Your task to perform on an android device: Open my contact list Image 0: 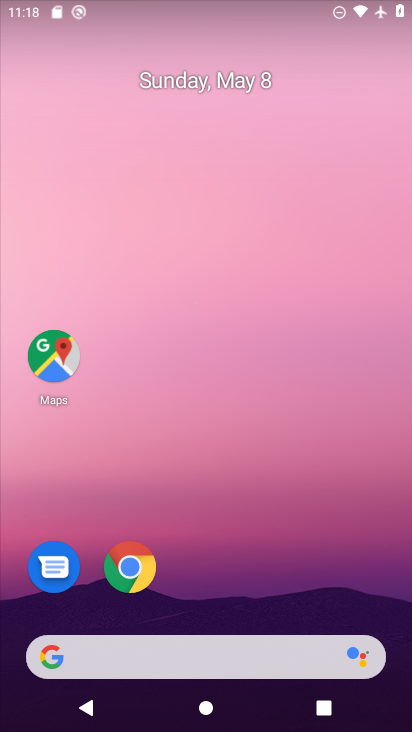
Step 0: drag from (191, 463) to (207, 142)
Your task to perform on an android device: Open my contact list Image 1: 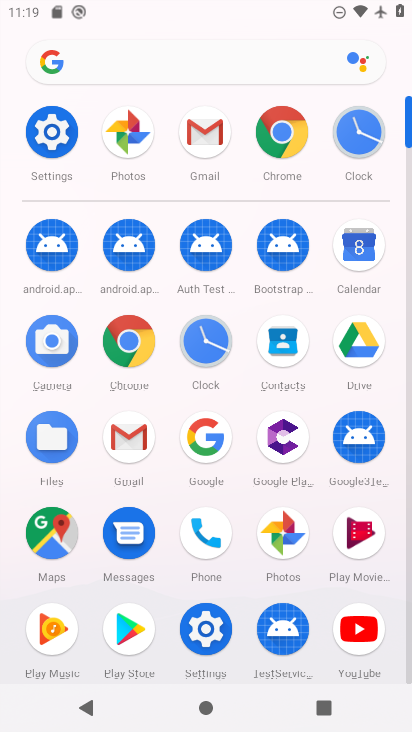
Step 1: drag from (245, 576) to (257, 292)
Your task to perform on an android device: Open my contact list Image 2: 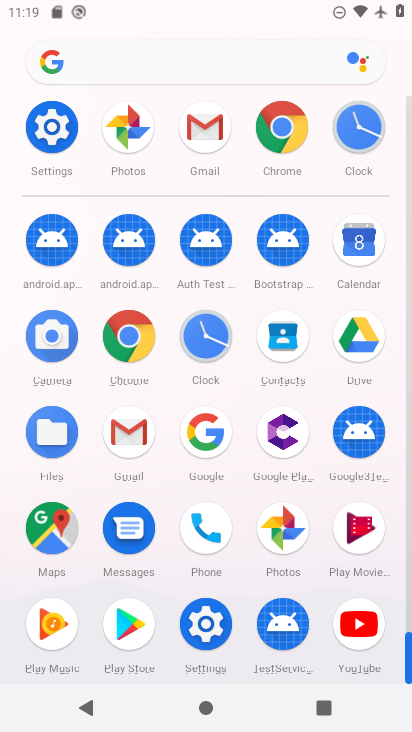
Step 2: click (280, 371)
Your task to perform on an android device: Open my contact list Image 3: 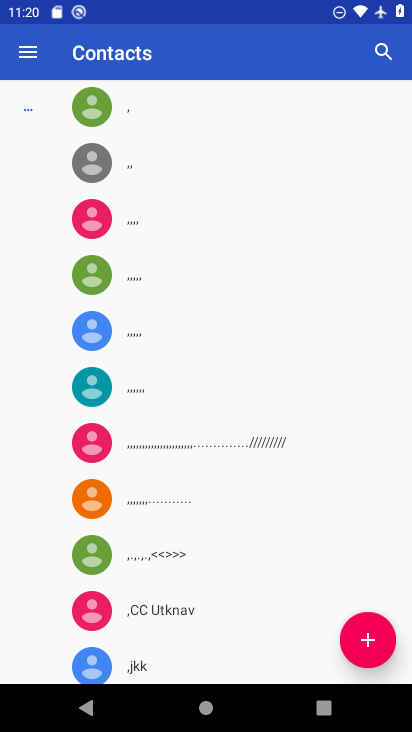
Step 3: task complete